Your task to perform on an android device: Open notification settings Image 0: 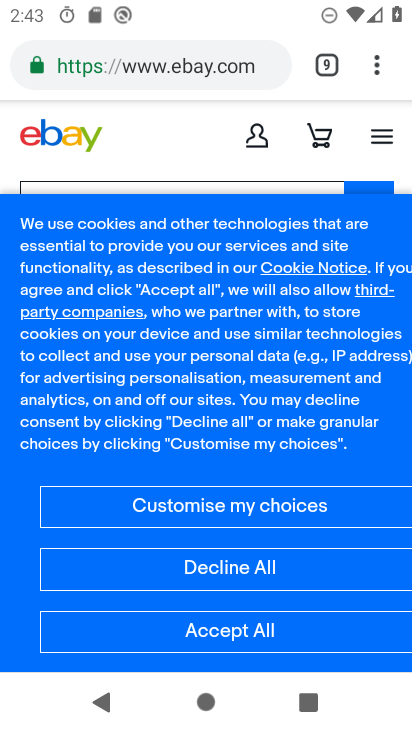
Step 0: press home button
Your task to perform on an android device: Open notification settings Image 1: 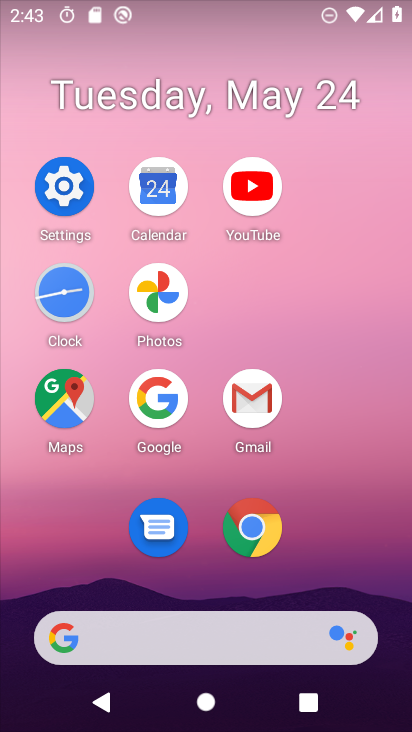
Step 1: click (70, 212)
Your task to perform on an android device: Open notification settings Image 2: 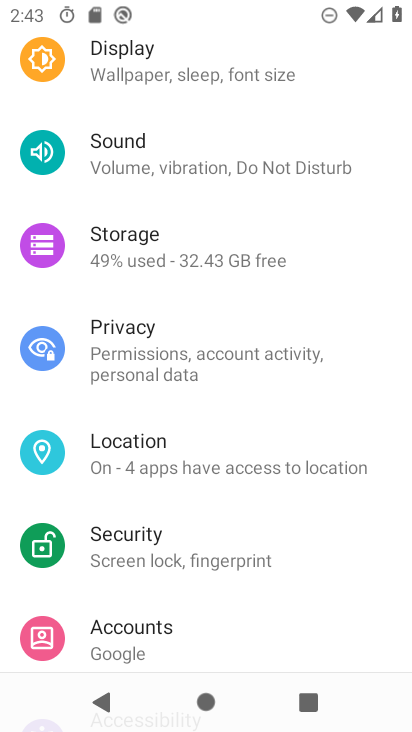
Step 2: drag from (302, 186) to (230, 546)
Your task to perform on an android device: Open notification settings Image 3: 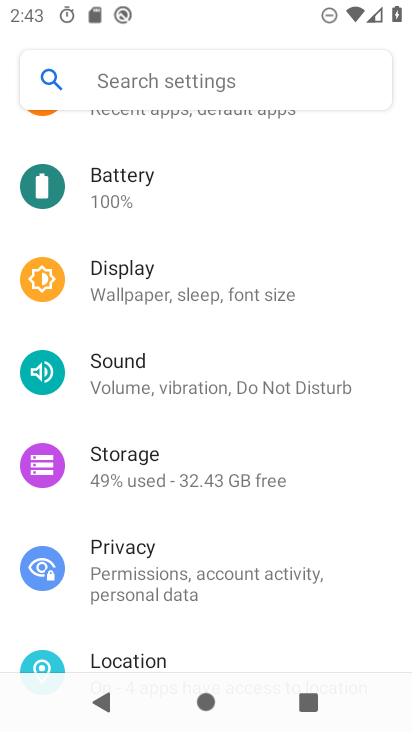
Step 3: drag from (312, 213) to (251, 551)
Your task to perform on an android device: Open notification settings Image 4: 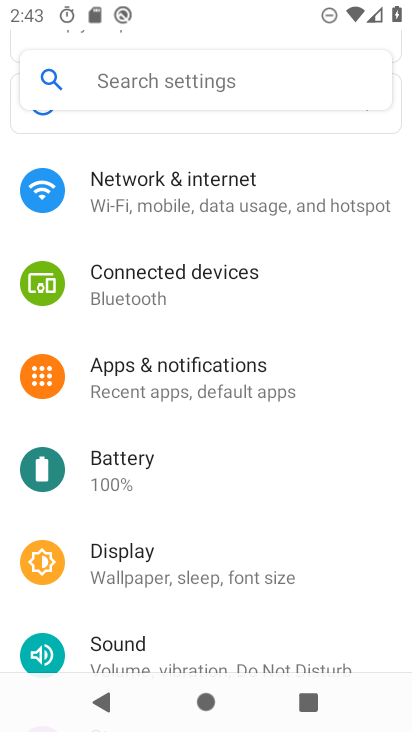
Step 4: drag from (309, 223) to (255, 525)
Your task to perform on an android device: Open notification settings Image 5: 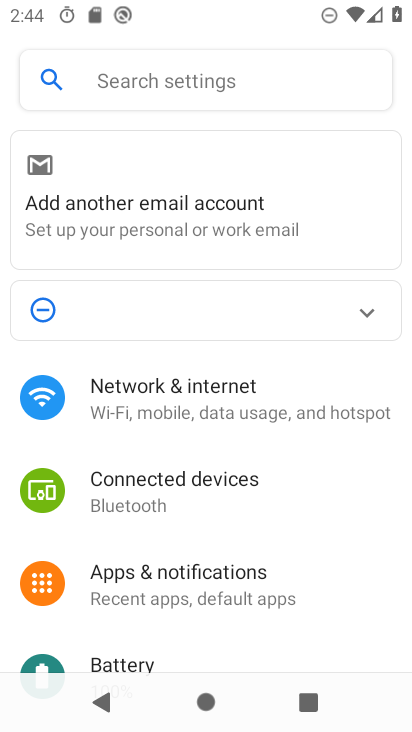
Step 5: click (216, 571)
Your task to perform on an android device: Open notification settings Image 6: 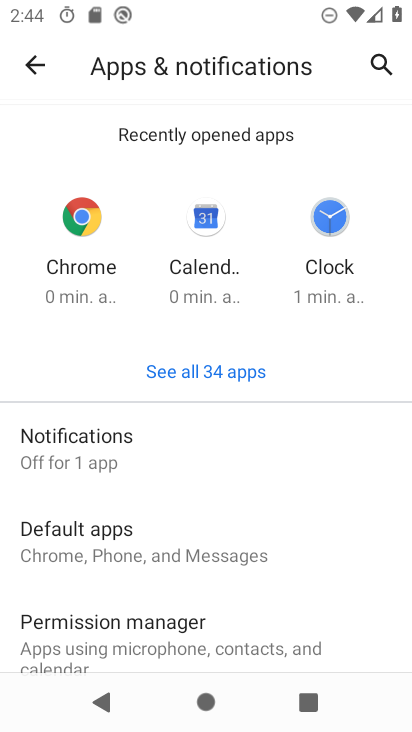
Step 6: task complete